Your task to perform on an android device: turn off notifications in google photos Image 0: 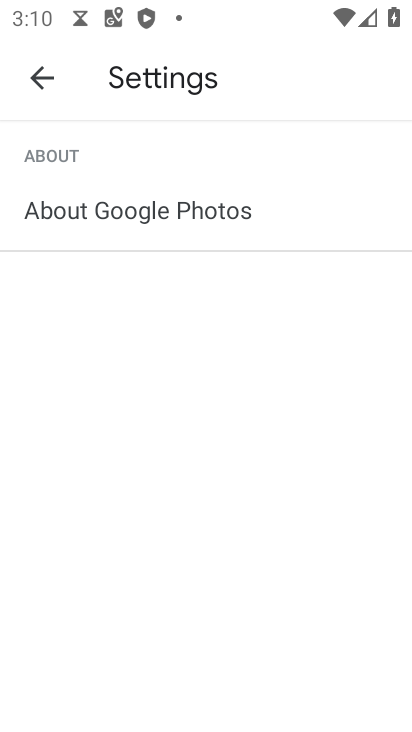
Step 0: click (37, 72)
Your task to perform on an android device: turn off notifications in google photos Image 1: 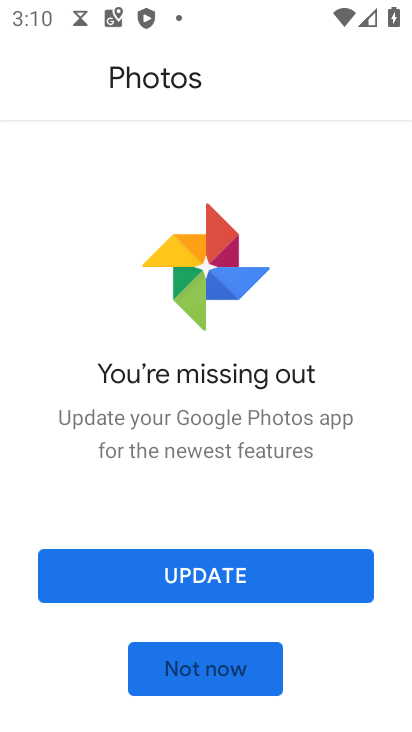
Step 1: click (220, 686)
Your task to perform on an android device: turn off notifications in google photos Image 2: 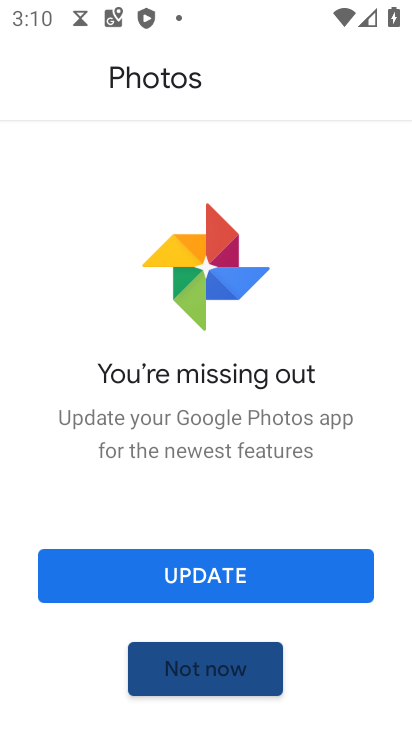
Step 2: click (218, 673)
Your task to perform on an android device: turn off notifications in google photos Image 3: 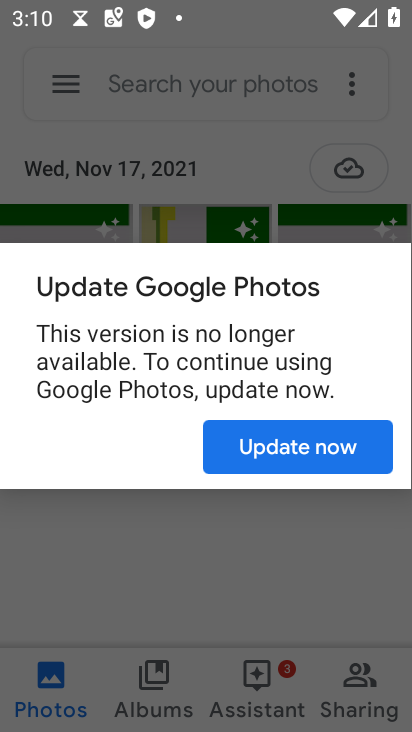
Step 3: click (218, 672)
Your task to perform on an android device: turn off notifications in google photos Image 4: 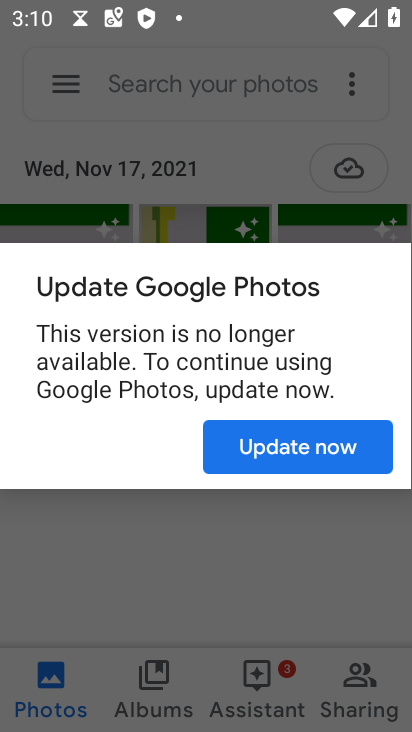
Step 4: click (299, 438)
Your task to perform on an android device: turn off notifications in google photos Image 5: 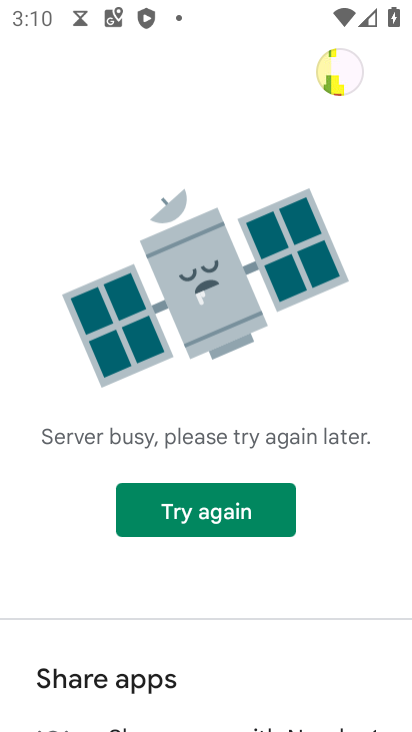
Step 5: press back button
Your task to perform on an android device: turn off notifications in google photos Image 6: 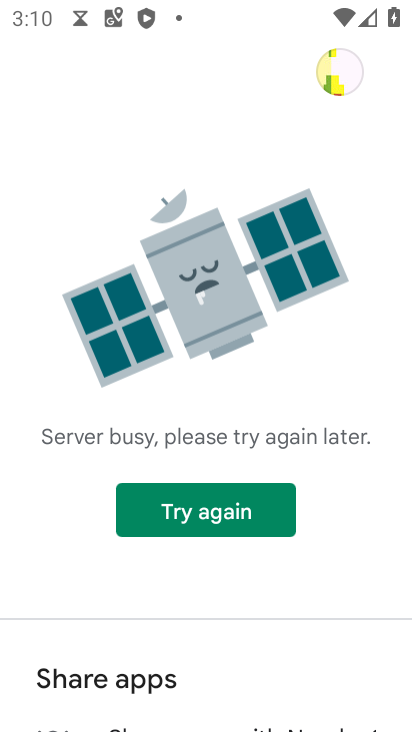
Step 6: press back button
Your task to perform on an android device: turn off notifications in google photos Image 7: 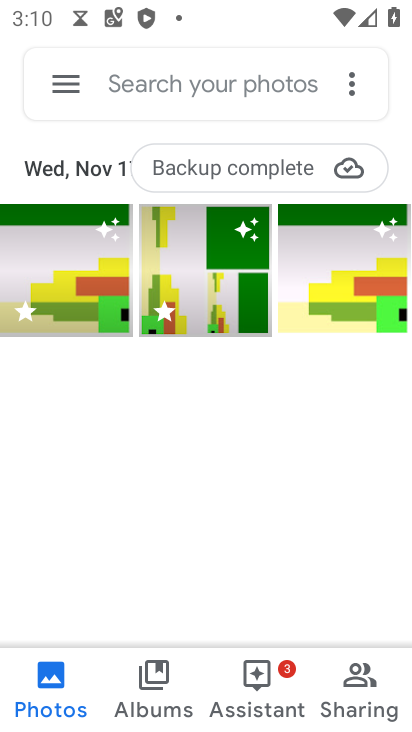
Step 7: press back button
Your task to perform on an android device: turn off notifications in google photos Image 8: 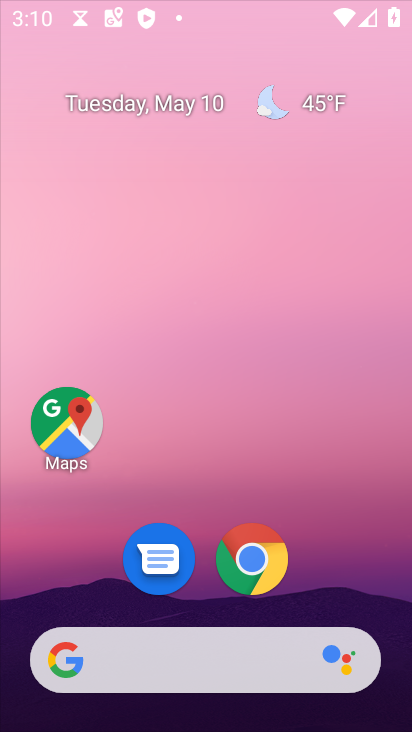
Step 8: press back button
Your task to perform on an android device: turn off notifications in google photos Image 9: 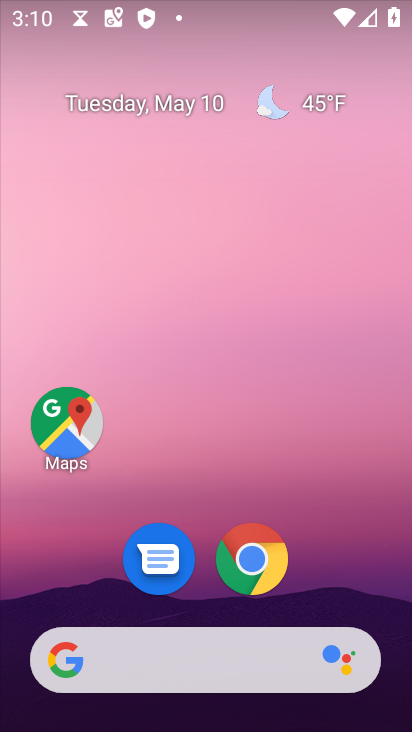
Step 9: drag from (252, 329) to (210, 29)
Your task to perform on an android device: turn off notifications in google photos Image 10: 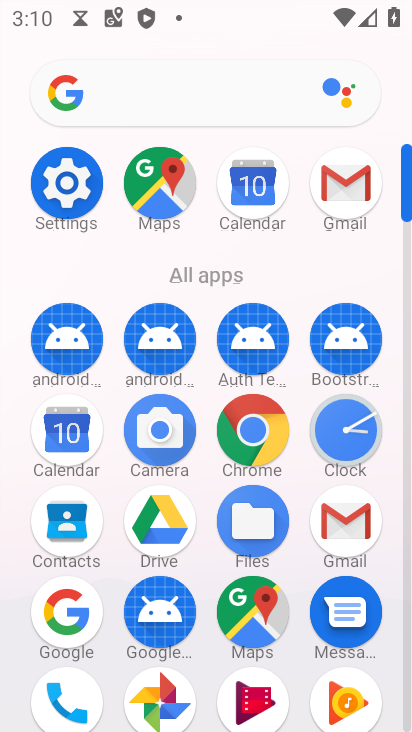
Step 10: click (165, 697)
Your task to perform on an android device: turn off notifications in google photos Image 11: 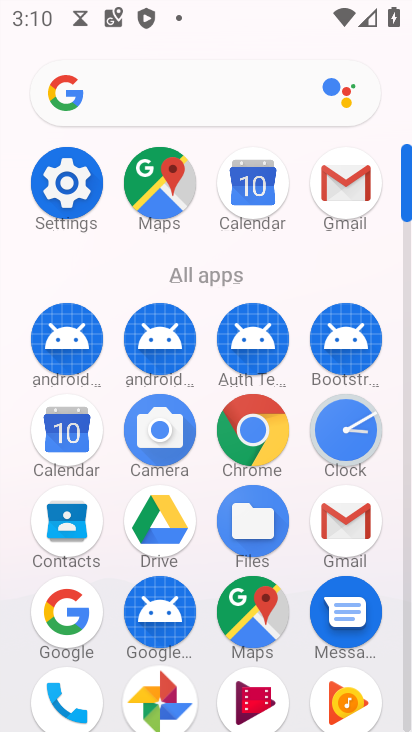
Step 11: click (162, 694)
Your task to perform on an android device: turn off notifications in google photos Image 12: 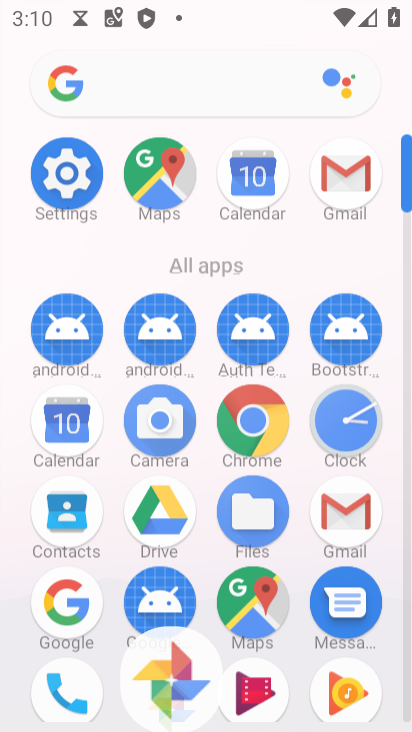
Step 12: click (162, 694)
Your task to perform on an android device: turn off notifications in google photos Image 13: 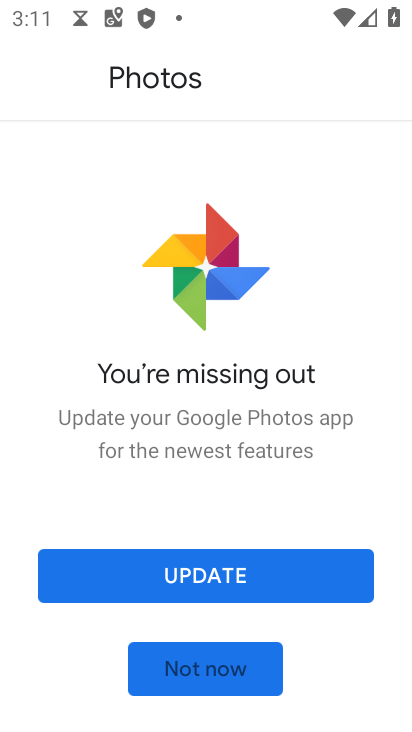
Step 13: click (212, 673)
Your task to perform on an android device: turn off notifications in google photos Image 14: 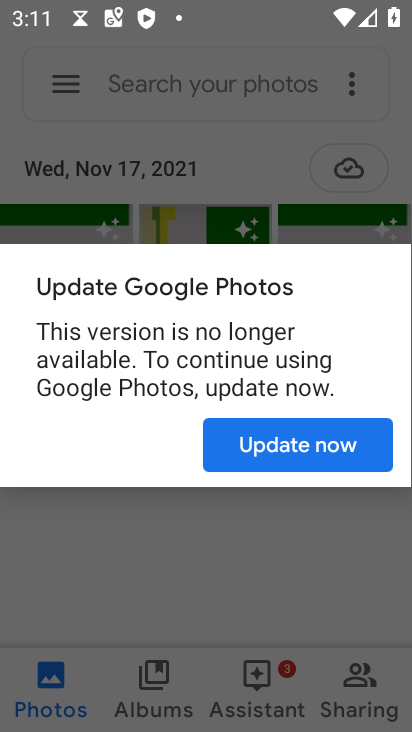
Step 14: click (284, 429)
Your task to perform on an android device: turn off notifications in google photos Image 15: 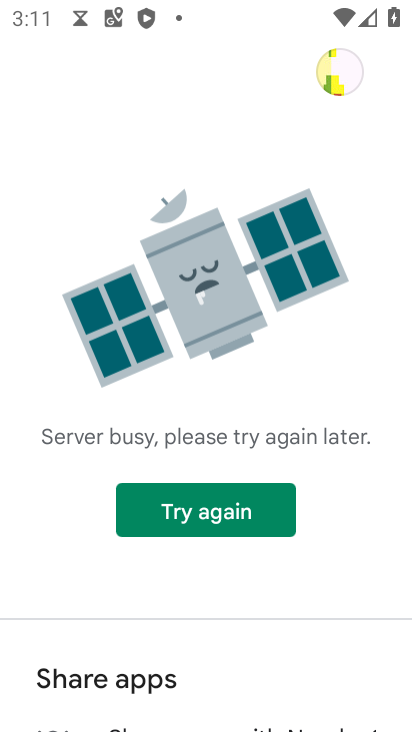
Step 15: click (195, 503)
Your task to perform on an android device: turn off notifications in google photos Image 16: 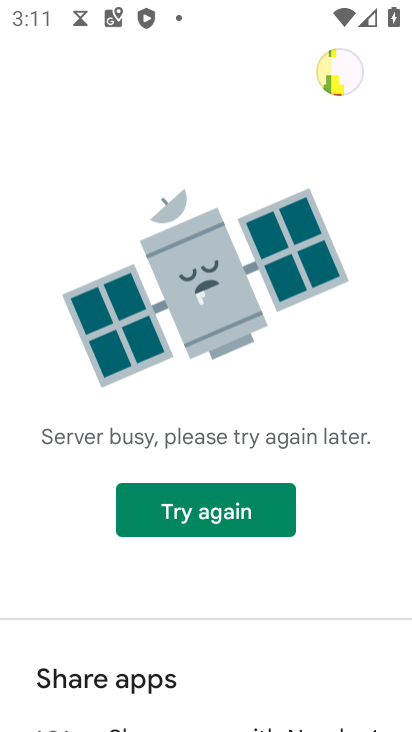
Step 16: click (195, 504)
Your task to perform on an android device: turn off notifications in google photos Image 17: 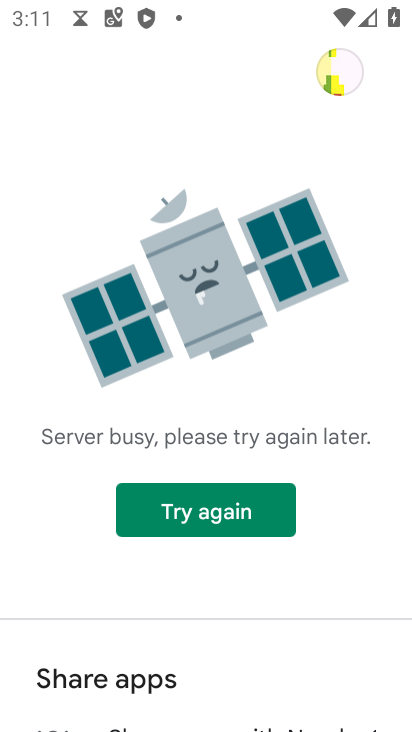
Step 17: click (195, 505)
Your task to perform on an android device: turn off notifications in google photos Image 18: 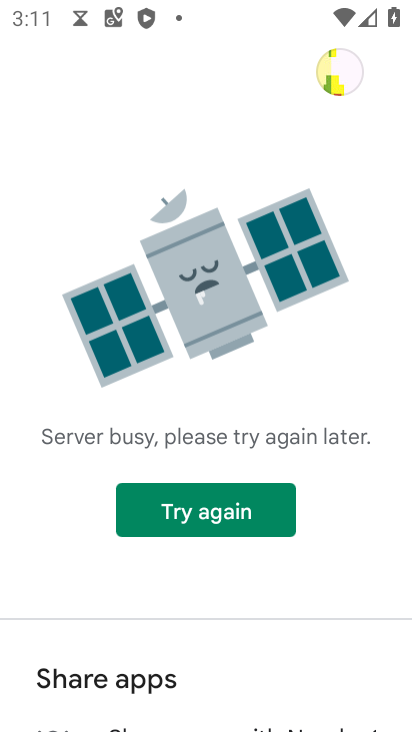
Step 18: click (195, 505)
Your task to perform on an android device: turn off notifications in google photos Image 19: 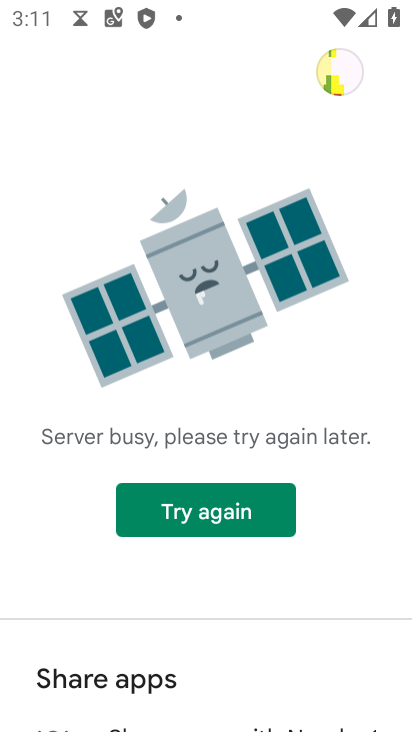
Step 19: click (177, 270)
Your task to perform on an android device: turn off notifications in google photos Image 20: 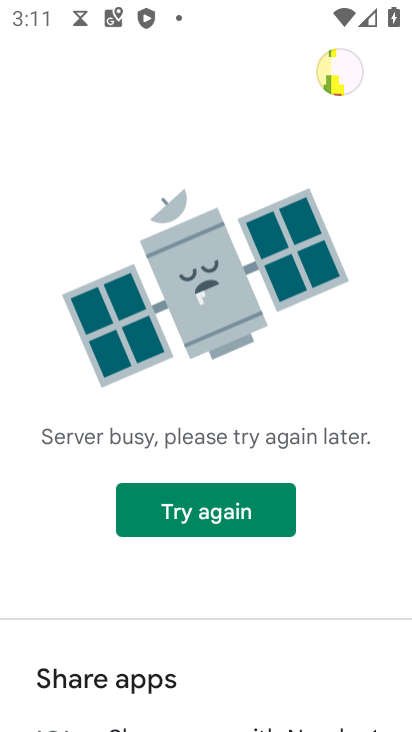
Step 20: click (177, 270)
Your task to perform on an android device: turn off notifications in google photos Image 21: 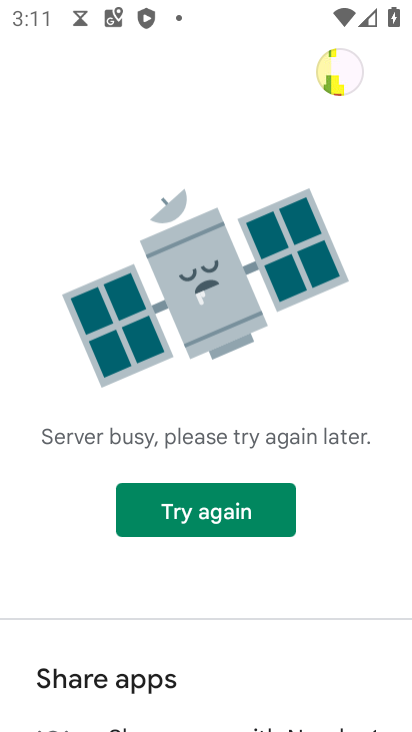
Step 21: click (178, 286)
Your task to perform on an android device: turn off notifications in google photos Image 22: 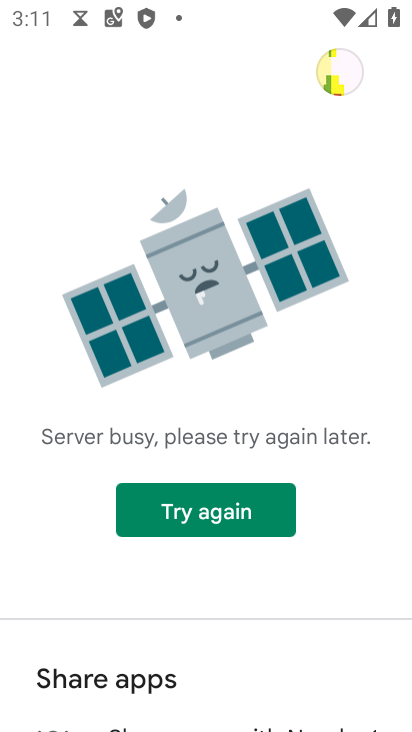
Step 22: click (178, 290)
Your task to perform on an android device: turn off notifications in google photos Image 23: 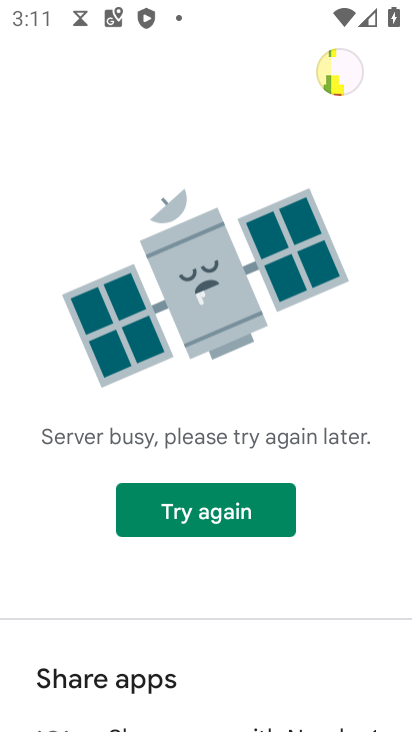
Step 23: click (204, 488)
Your task to perform on an android device: turn off notifications in google photos Image 24: 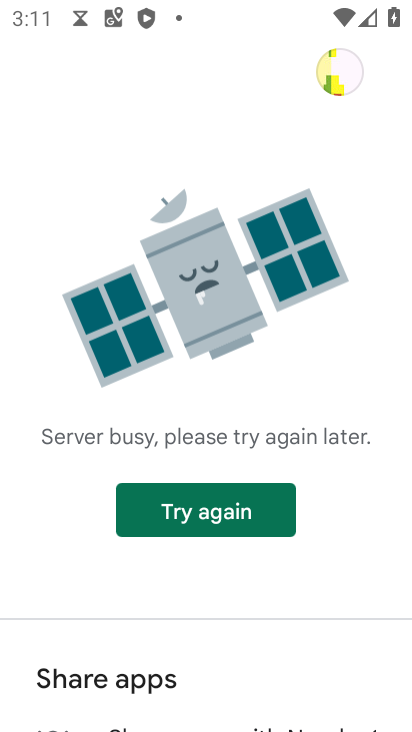
Step 24: click (211, 505)
Your task to perform on an android device: turn off notifications in google photos Image 25: 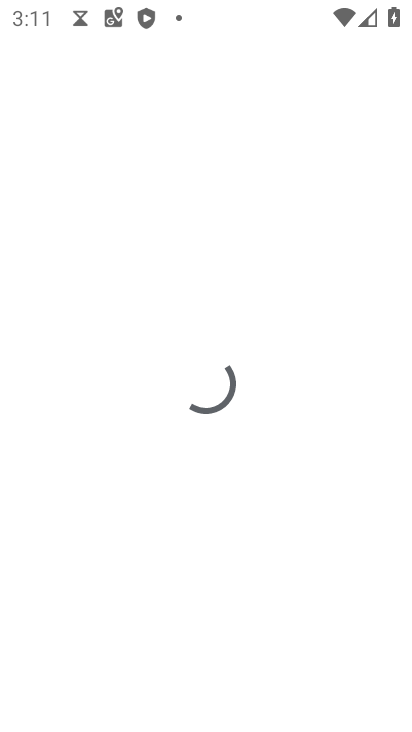
Step 25: click (211, 505)
Your task to perform on an android device: turn off notifications in google photos Image 26: 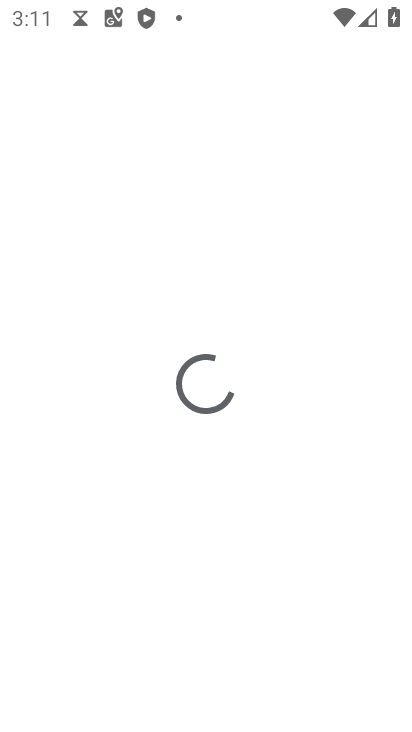
Step 26: click (211, 505)
Your task to perform on an android device: turn off notifications in google photos Image 27: 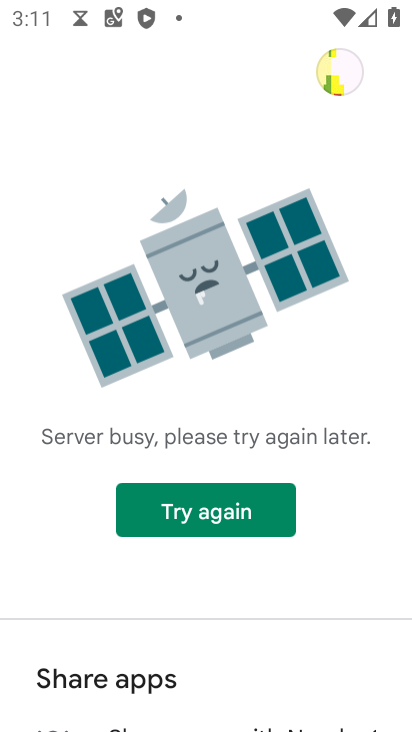
Step 27: task complete